Your task to perform on an android device: Go to eBay Image 0: 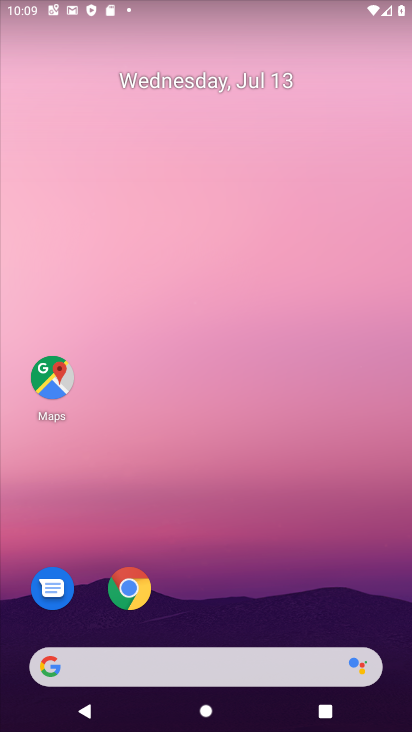
Step 0: drag from (212, 638) to (138, 150)
Your task to perform on an android device: Go to eBay Image 1: 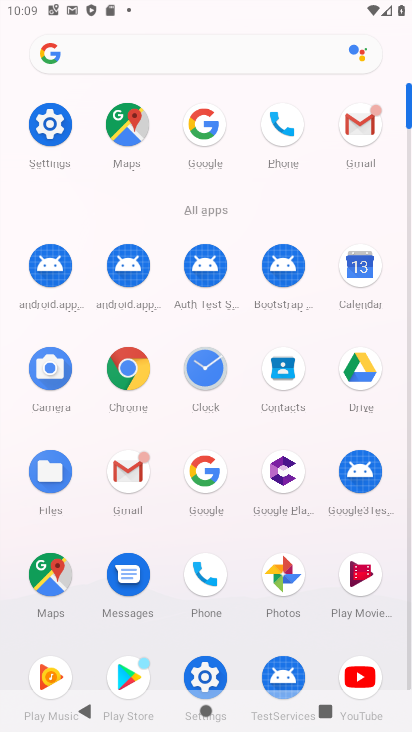
Step 1: click (131, 371)
Your task to perform on an android device: Go to eBay Image 2: 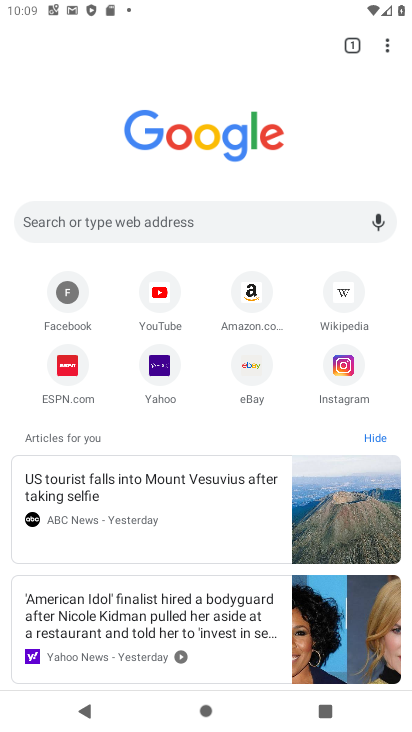
Step 2: click (239, 377)
Your task to perform on an android device: Go to eBay Image 3: 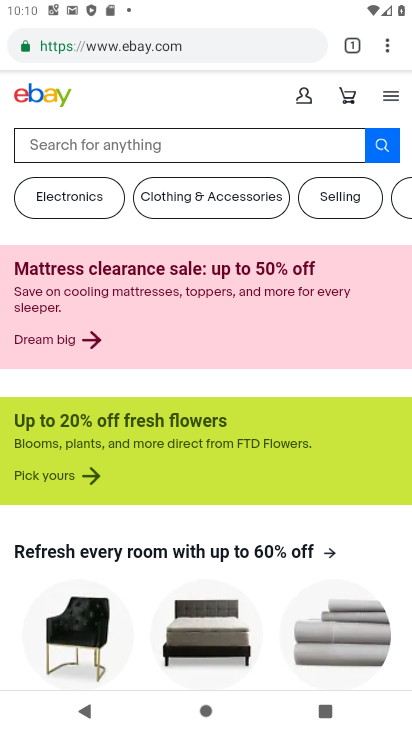
Step 3: task complete